Your task to perform on an android device: check google app version Image 0: 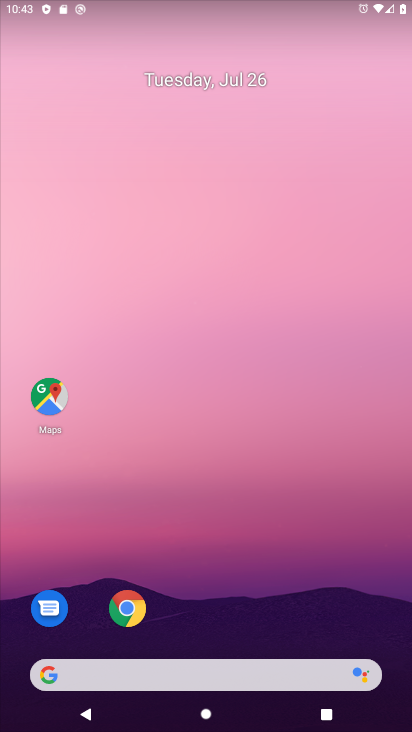
Step 0: drag from (228, 716) to (226, 246)
Your task to perform on an android device: check google app version Image 1: 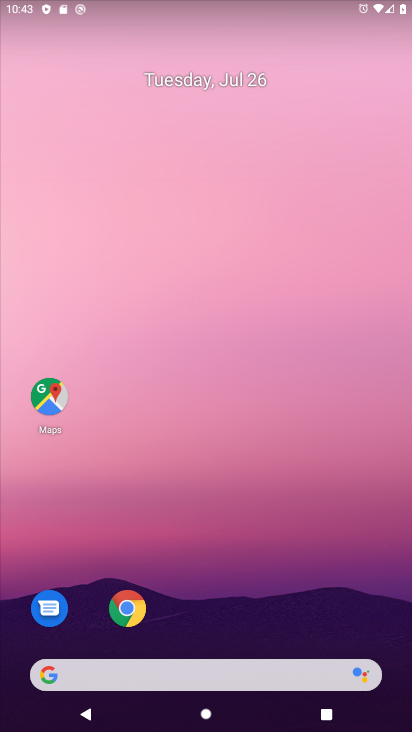
Step 1: drag from (228, 723) to (225, 236)
Your task to perform on an android device: check google app version Image 2: 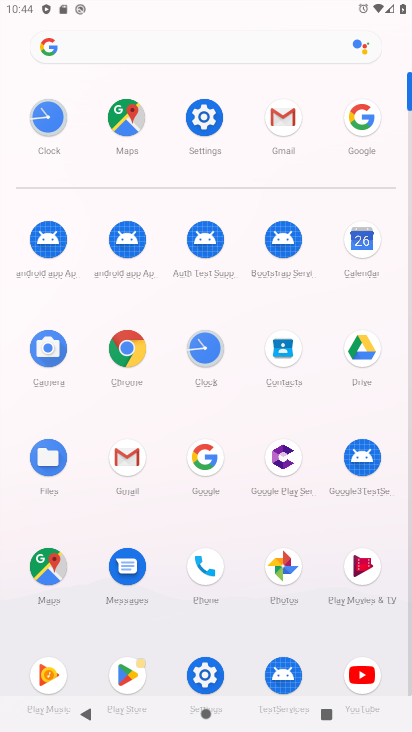
Step 2: click (206, 455)
Your task to perform on an android device: check google app version Image 3: 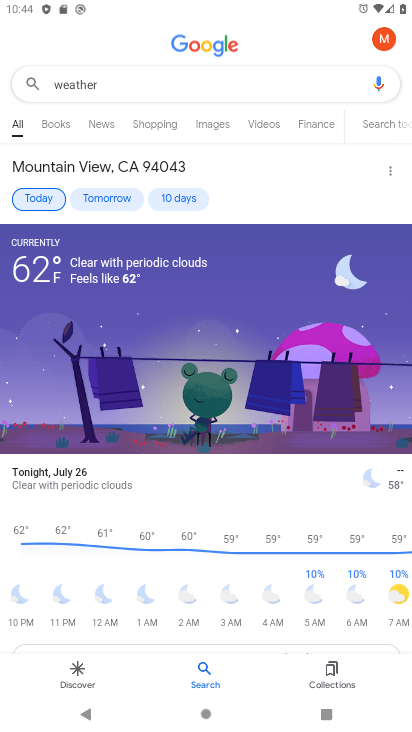
Step 3: click (384, 37)
Your task to perform on an android device: check google app version Image 4: 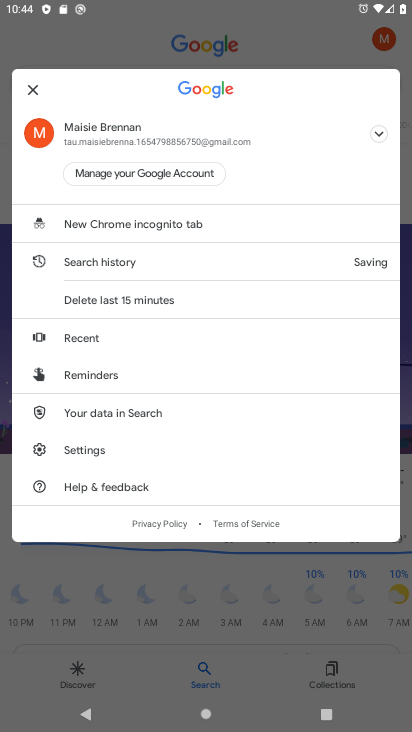
Step 4: click (72, 448)
Your task to perform on an android device: check google app version Image 5: 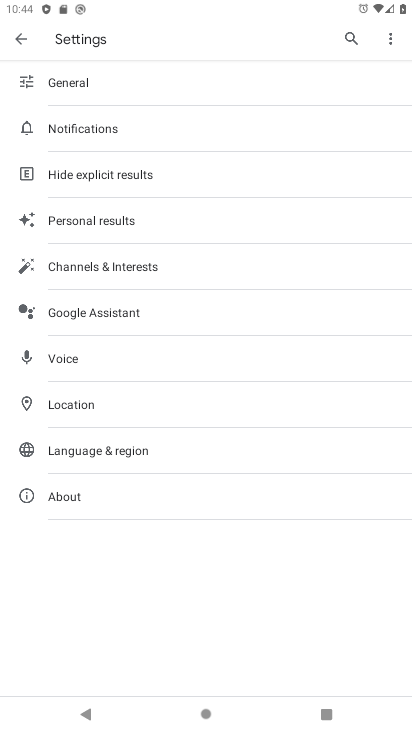
Step 5: click (62, 492)
Your task to perform on an android device: check google app version Image 6: 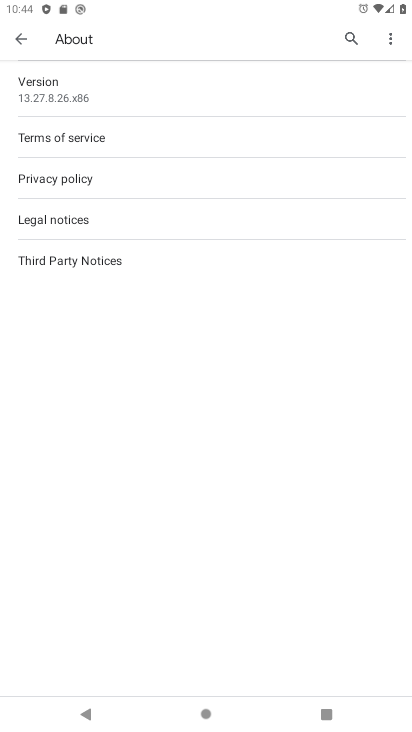
Step 6: task complete